Your task to perform on an android device: What's the weather going to be tomorrow? Image 0: 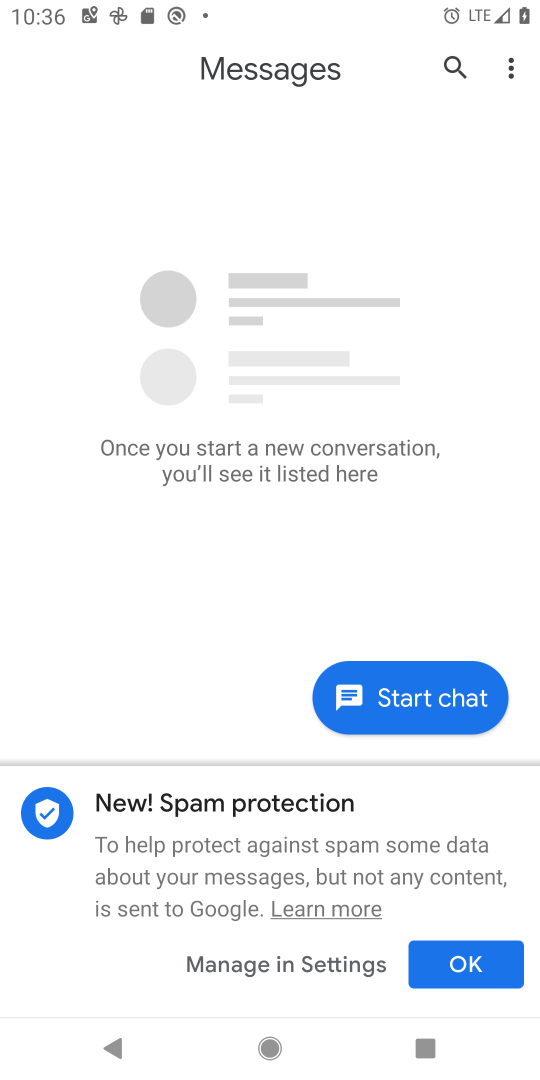
Step 0: press home button
Your task to perform on an android device: What's the weather going to be tomorrow? Image 1: 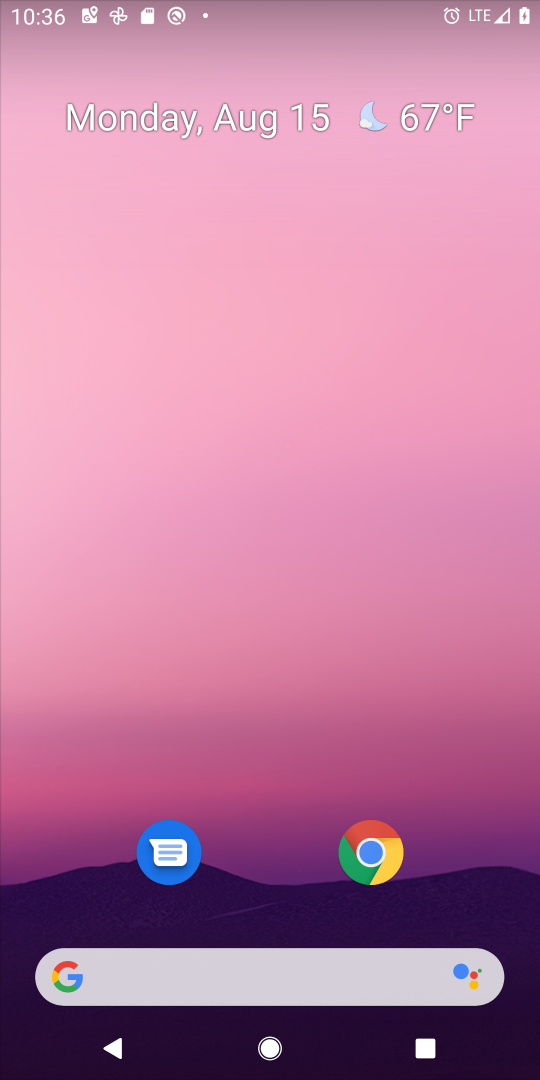
Step 1: drag from (241, 968) to (312, 28)
Your task to perform on an android device: What's the weather going to be tomorrow? Image 2: 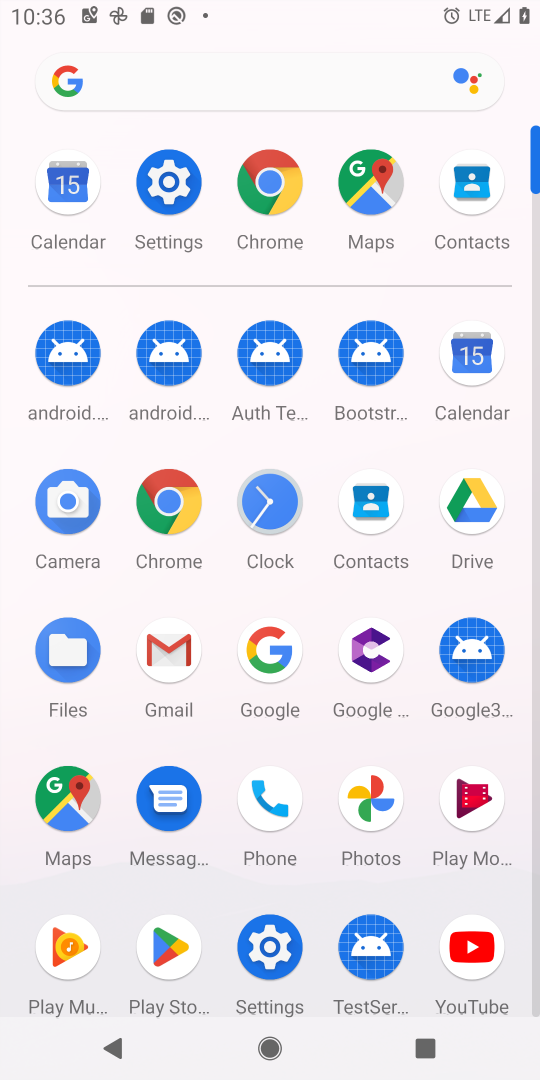
Step 2: click (264, 651)
Your task to perform on an android device: What's the weather going to be tomorrow? Image 3: 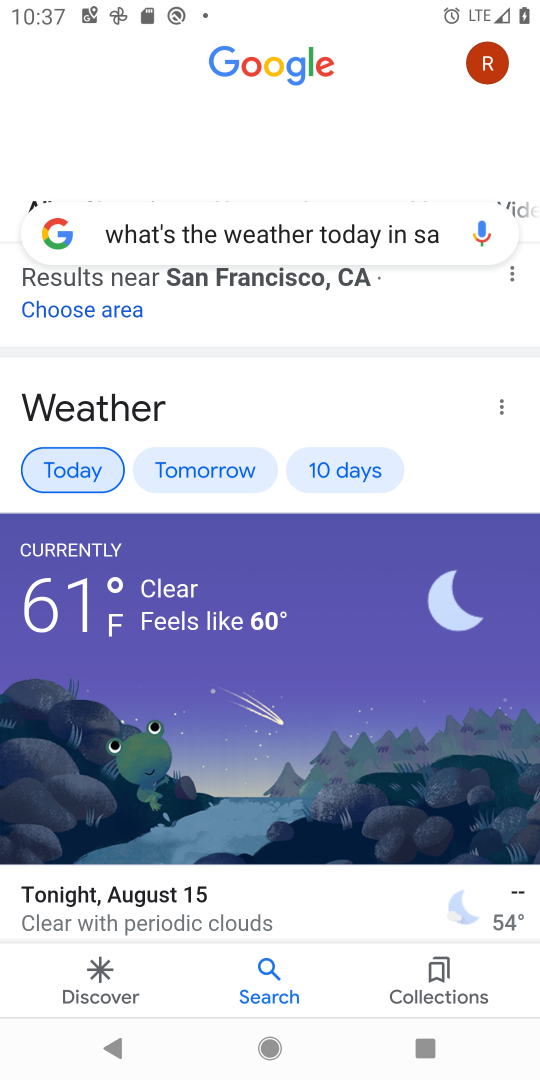
Step 3: click (437, 238)
Your task to perform on an android device: What's the weather going to be tomorrow? Image 4: 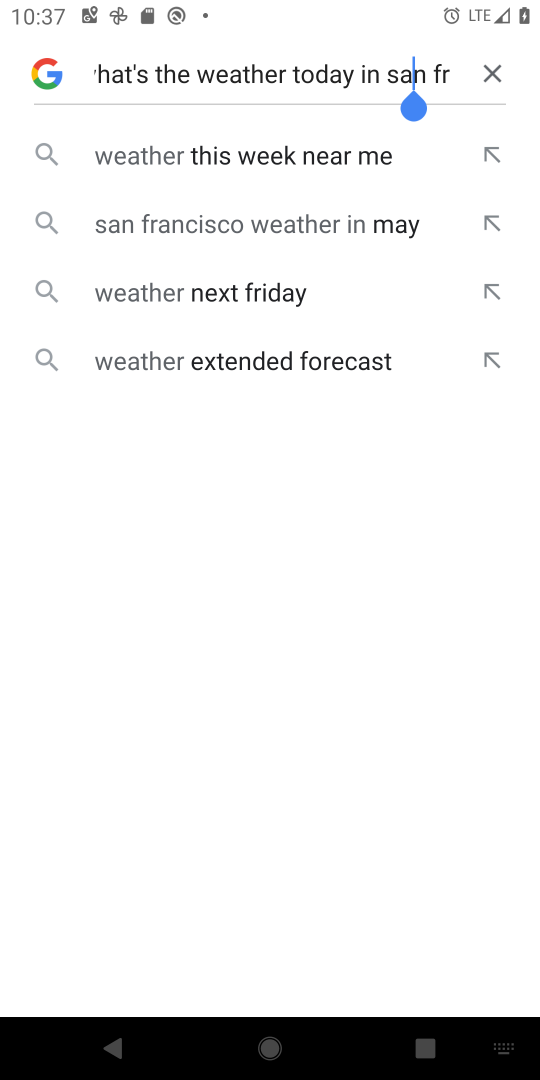
Step 4: click (487, 71)
Your task to perform on an android device: What's the weather going to be tomorrow? Image 5: 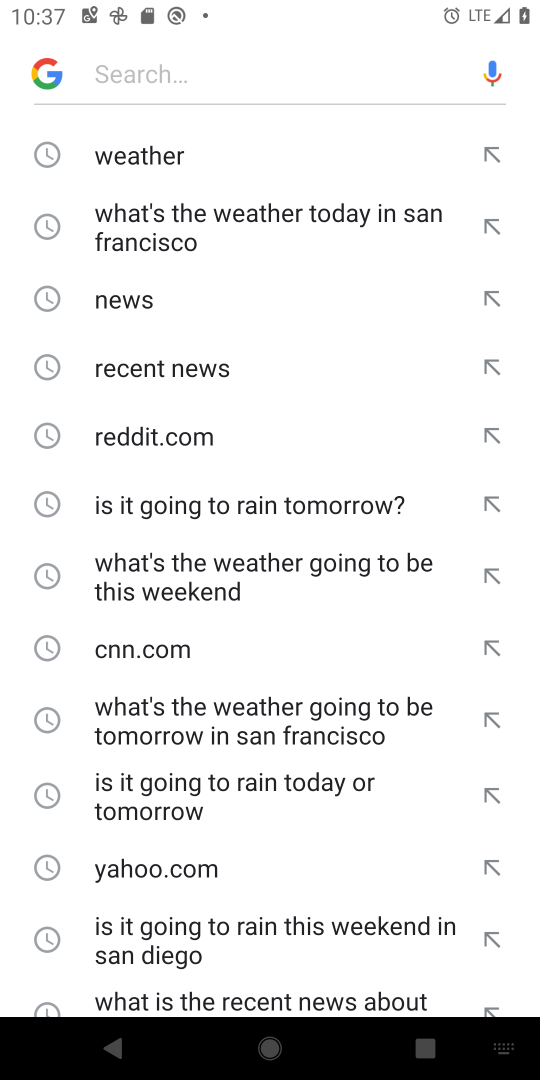
Step 5: type "What's the weather going to be tomorrow?"
Your task to perform on an android device: What's the weather going to be tomorrow? Image 6: 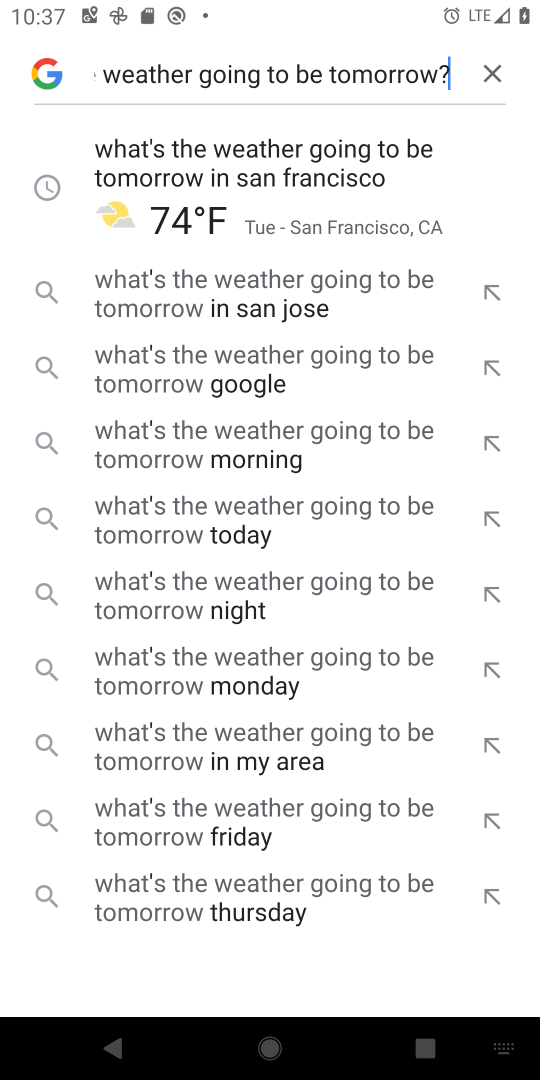
Step 6: click (318, 186)
Your task to perform on an android device: What's the weather going to be tomorrow? Image 7: 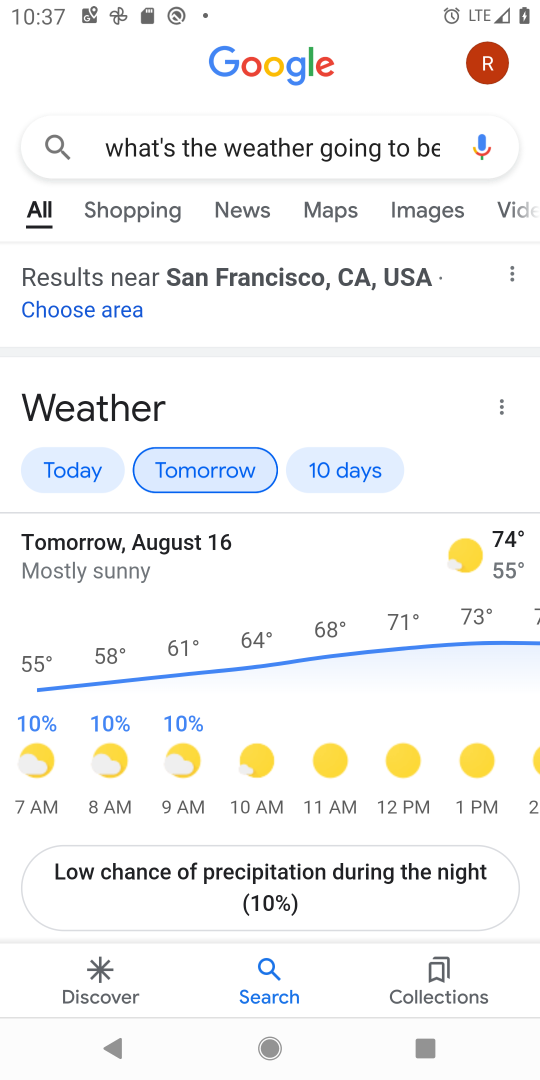
Step 7: task complete